Your task to perform on an android device: set the stopwatch Image 0: 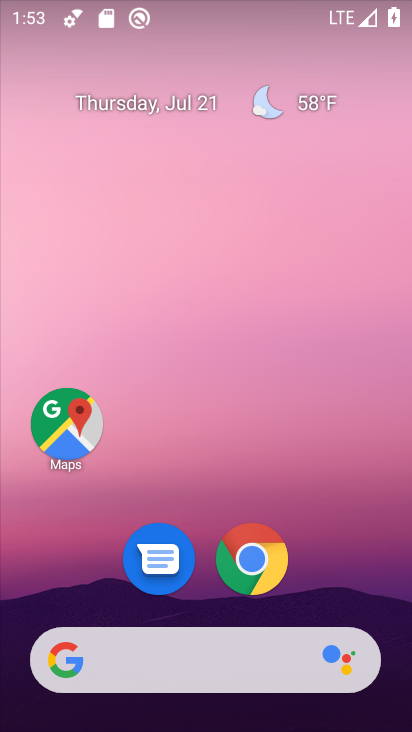
Step 0: drag from (330, 575) to (346, 127)
Your task to perform on an android device: set the stopwatch Image 1: 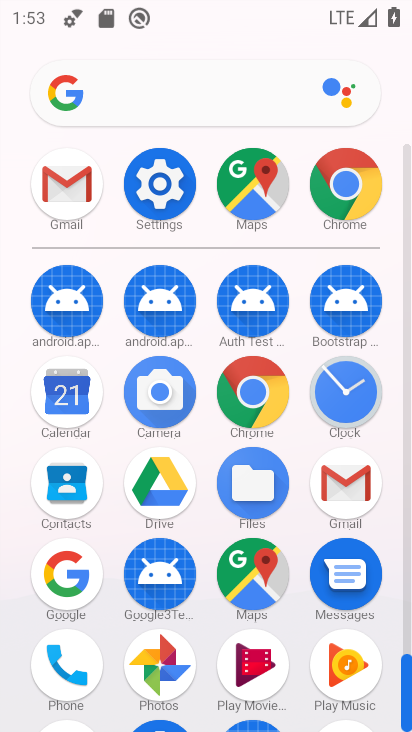
Step 1: click (363, 389)
Your task to perform on an android device: set the stopwatch Image 2: 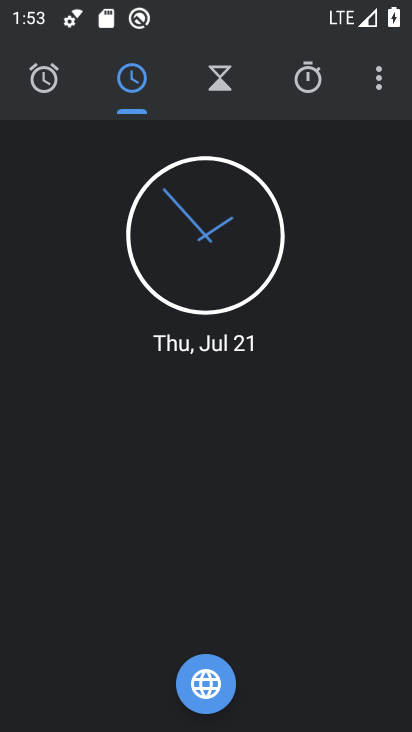
Step 2: click (302, 81)
Your task to perform on an android device: set the stopwatch Image 3: 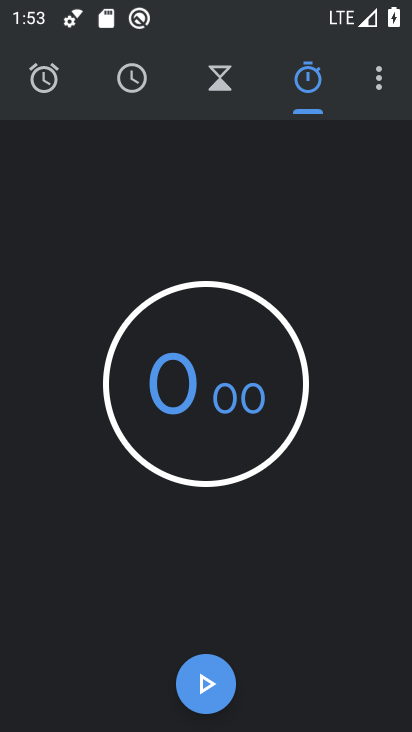
Step 3: click (207, 693)
Your task to perform on an android device: set the stopwatch Image 4: 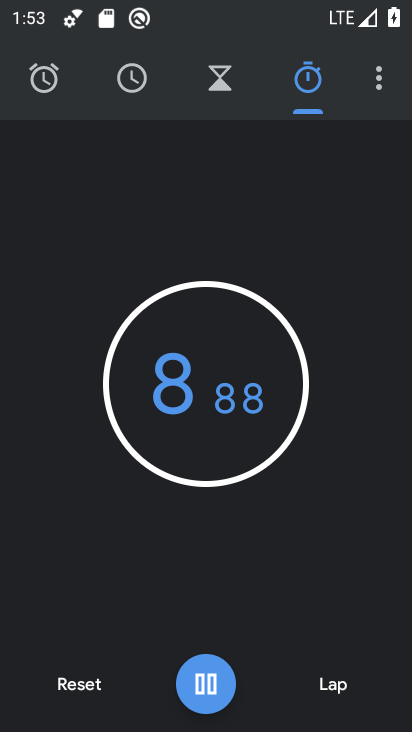
Step 4: task complete